Your task to perform on an android device: toggle sleep mode Image 0: 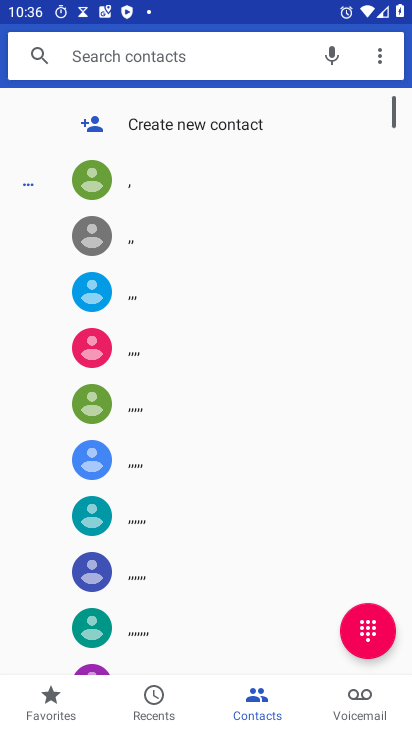
Step 0: press home button
Your task to perform on an android device: toggle sleep mode Image 1: 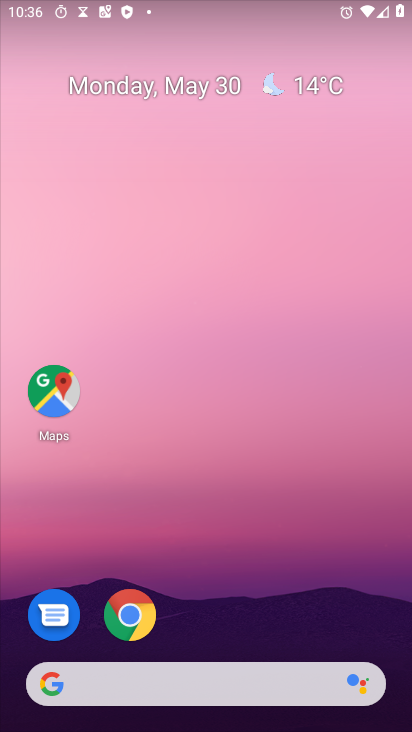
Step 1: drag from (352, 609) to (399, 152)
Your task to perform on an android device: toggle sleep mode Image 2: 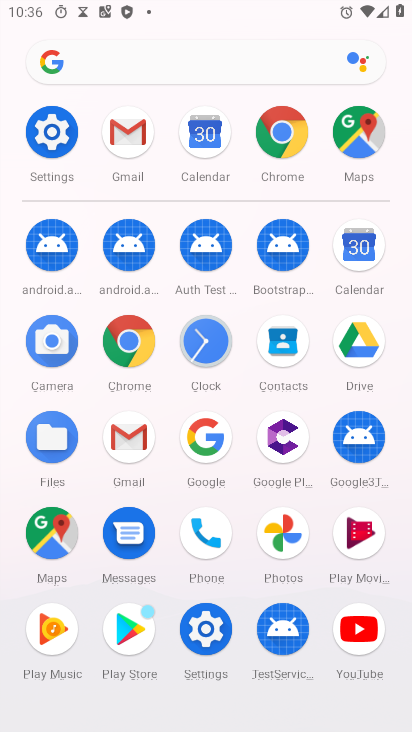
Step 2: click (69, 141)
Your task to perform on an android device: toggle sleep mode Image 3: 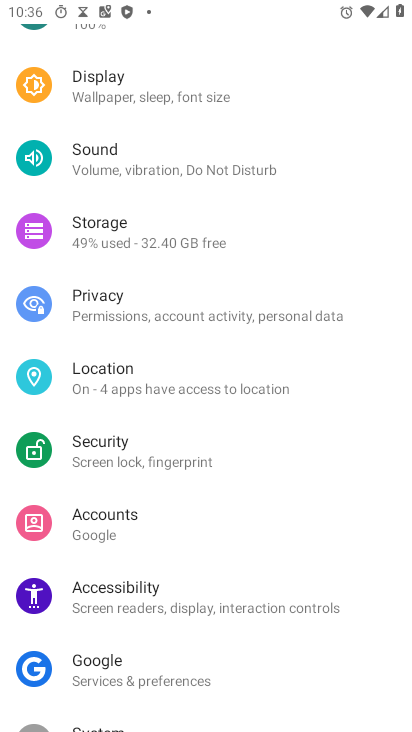
Step 3: drag from (223, 189) to (280, 563)
Your task to perform on an android device: toggle sleep mode Image 4: 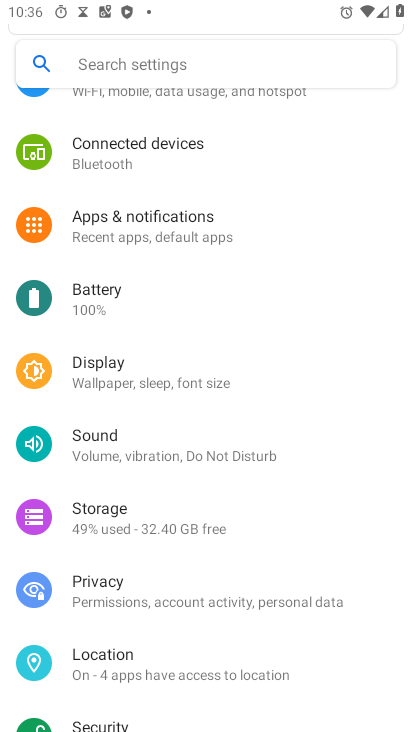
Step 4: click (147, 382)
Your task to perform on an android device: toggle sleep mode Image 5: 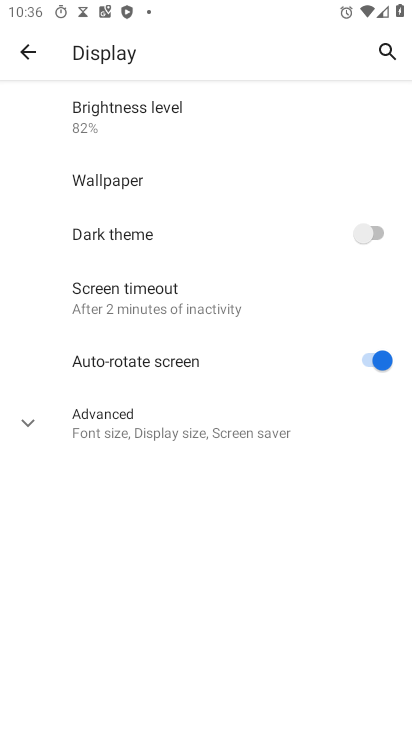
Step 5: click (104, 307)
Your task to perform on an android device: toggle sleep mode Image 6: 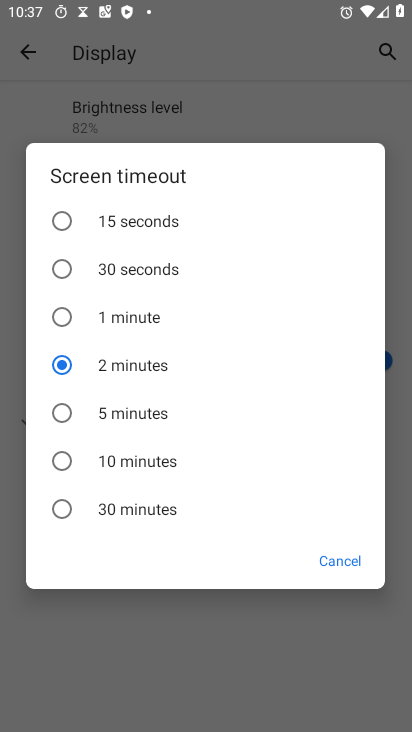
Step 6: click (93, 414)
Your task to perform on an android device: toggle sleep mode Image 7: 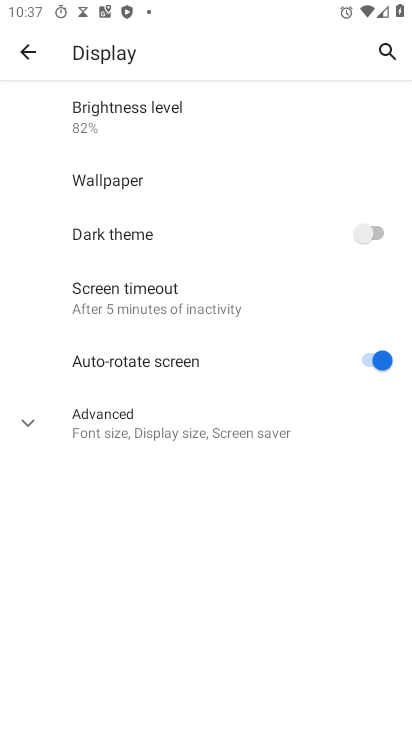
Step 7: task complete